Your task to perform on an android device: Do I have any events this weekend? Image 0: 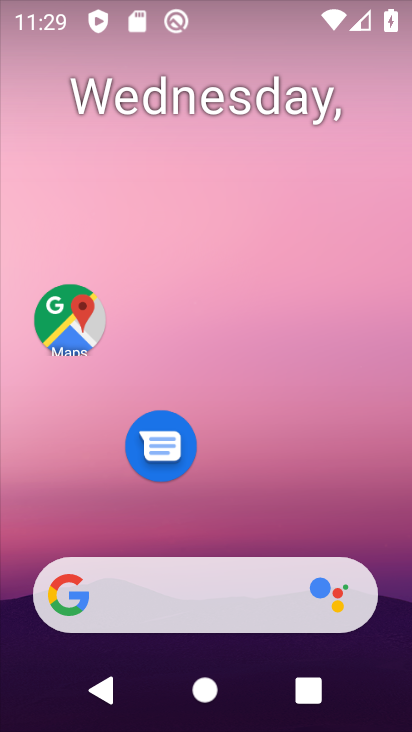
Step 0: drag from (230, 490) to (214, 124)
Your task to perform on an android device: Do I have any events this weekend? Image 1: 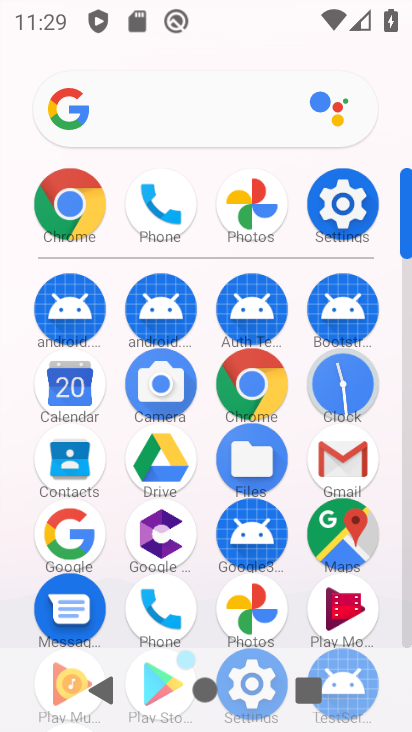
Step 1: click (70, 400)
Your task to perform on an android device: Do I have any events this weekend? Image 2: 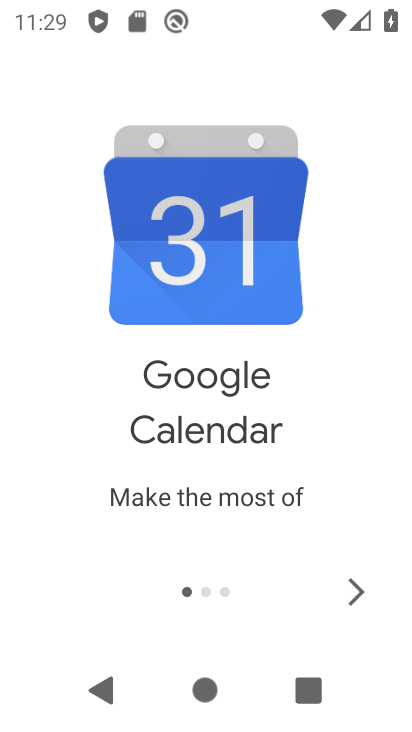
Step 2: click (351, 596)
Your task to perform on an android device: Do I have any events this weekend? Image 3: 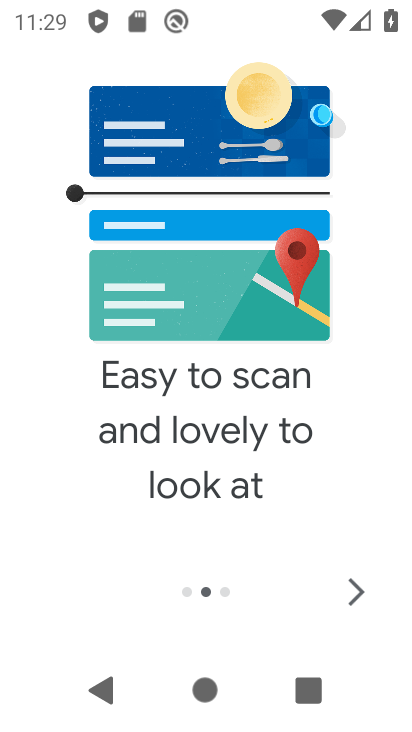
Step 3: click (351, 596)
Your task to perform on an android device: Do I have any events this weekend? Image 4: 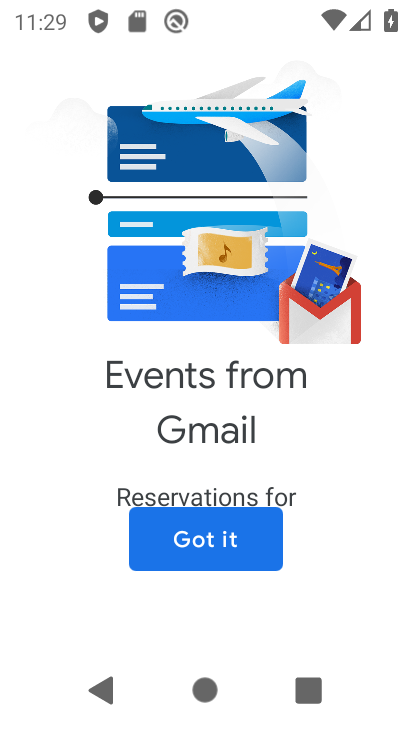
Step 4: click (199, 547)
Your task to perform on an android device: Do I have any events this weekend? Image 5: 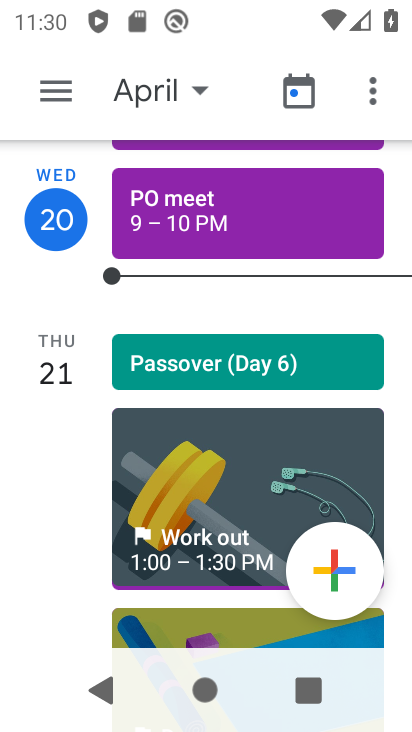
Step 5: task complete